Your task to perform on an android device: see sites visited before in the chrome app Image 0: 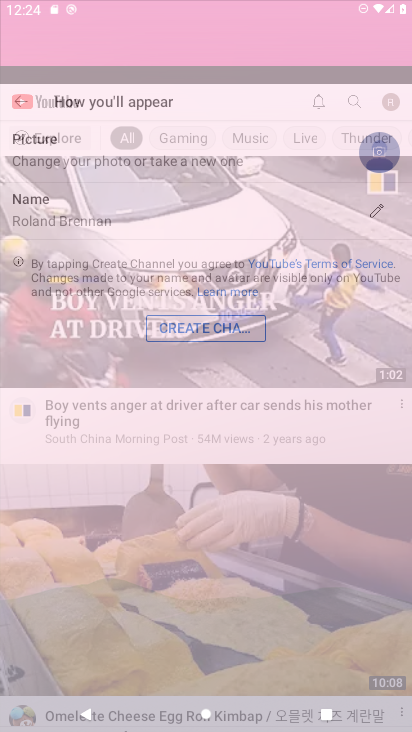
Step 0: press home button
Your task to perform on an android device: see sites visited before in the chrome app Image 1: 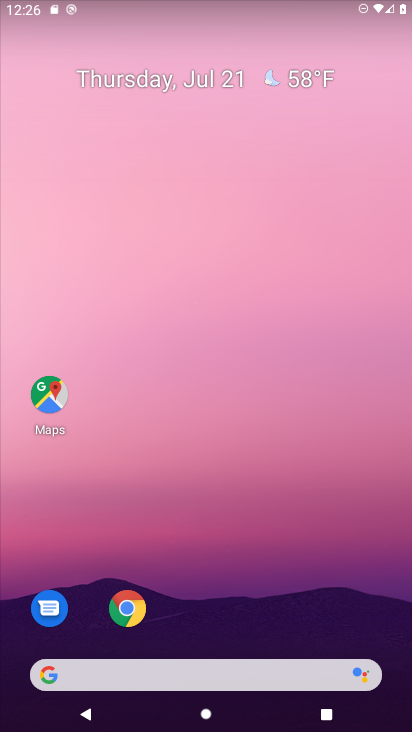
Step 1: drag from (207, 590) to (207, 0)
Your task to perform on an android device: see sites visited before in the chrome app Image 2: 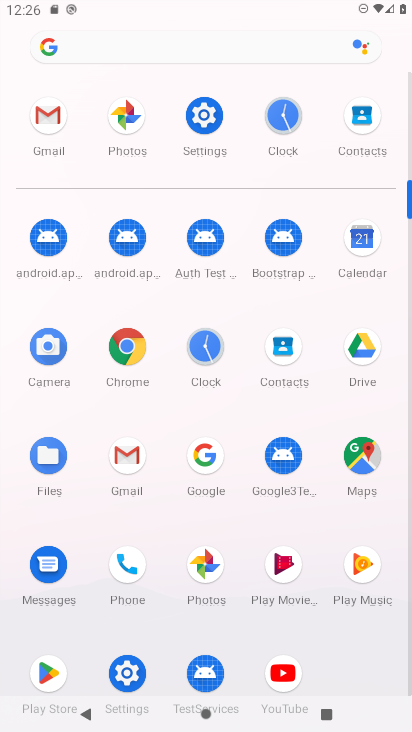
Step 2: click (119, 353)
Your task to perform on an android device: see sites visited before in the chrome app Image 3: 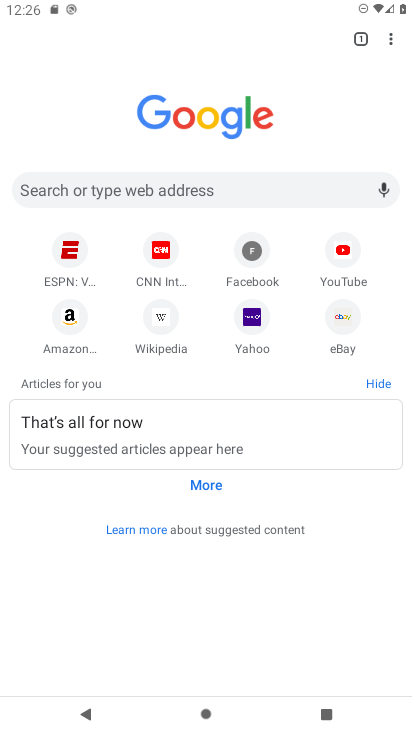
Step 3: task complete